Your task to perform on an android device: Go to eBay Image 0: 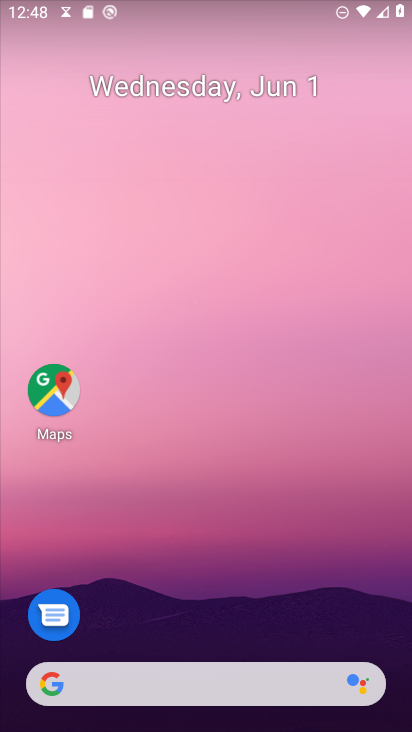
Step 0: drag from (203, 647) to (261, 178)
Your task to perform on an android device: Go to eBay Image 1: 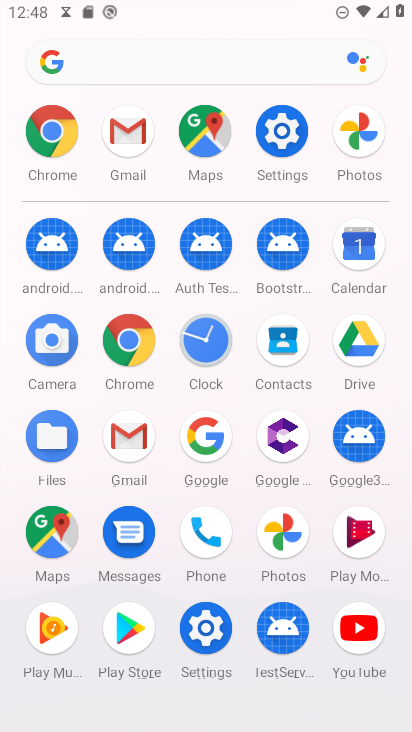
Step 1: click (133, 344)
Your task to perform on an android device: Go to eBay Image 2: 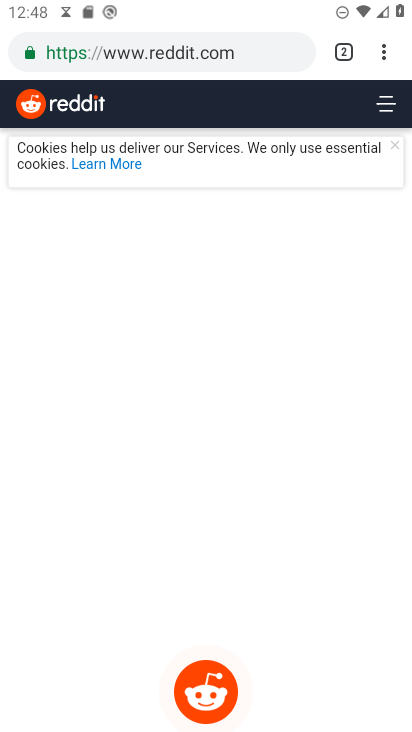
Step 2: click (282, 59)
Your task to perform on an android device: Go to eBay Image 3: 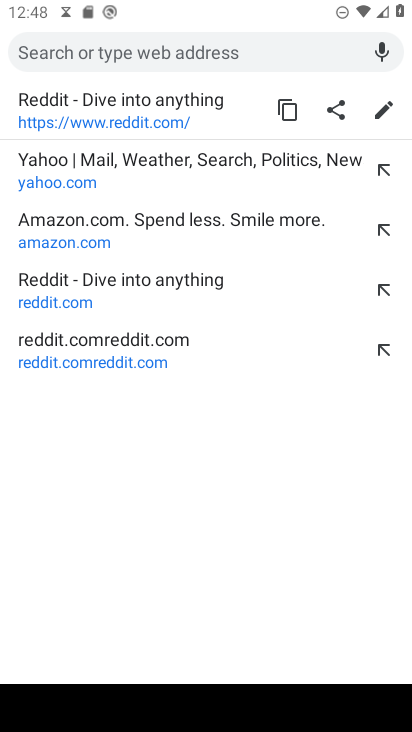
Step 3: type "ebay"
Your task to perform on an android device: Go to eBay Image 4: 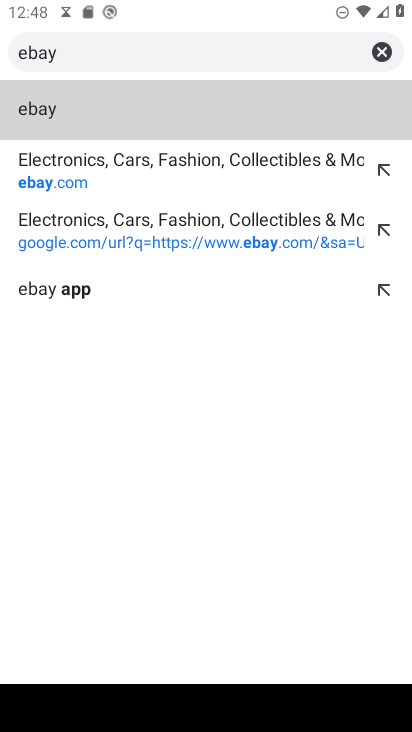
Step 4: click (116, 118)
Your task to perform on an android device: Go to eBay Image 5: 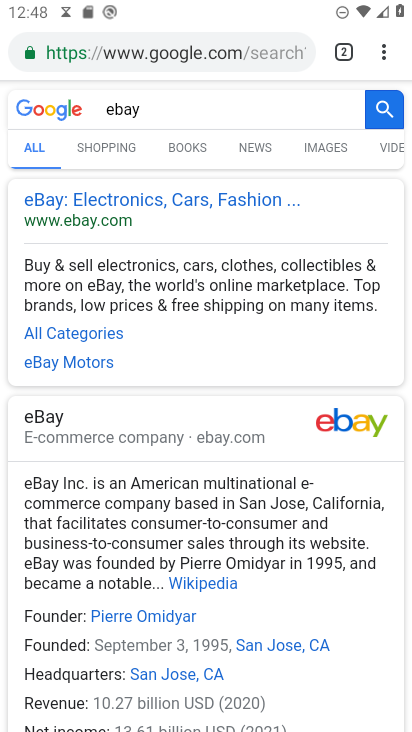
Step 5: click (152, 208)
Your task to perform on an android device: Go to eBay Image 6: 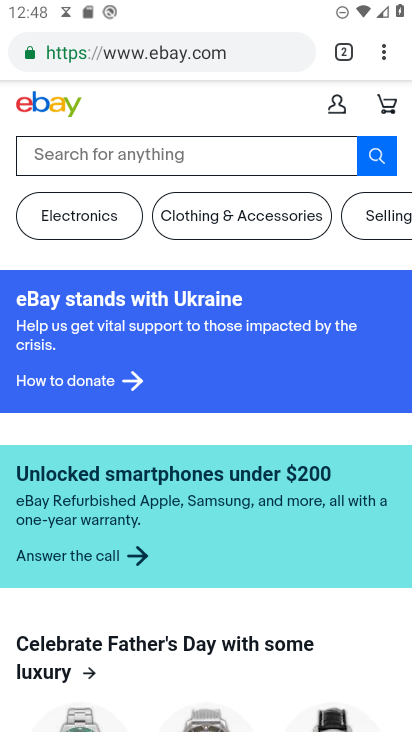
Step 6: task complete